Your task to perform on an android device: clear history in the chrome app Image 0: 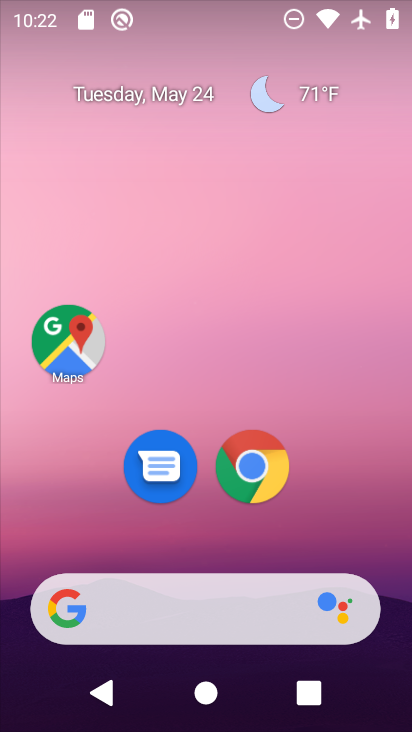
Step 0: drag from (208, 506) to (219, 90)
Your task to perform on an android device: clear history in the chrome app Image 1: 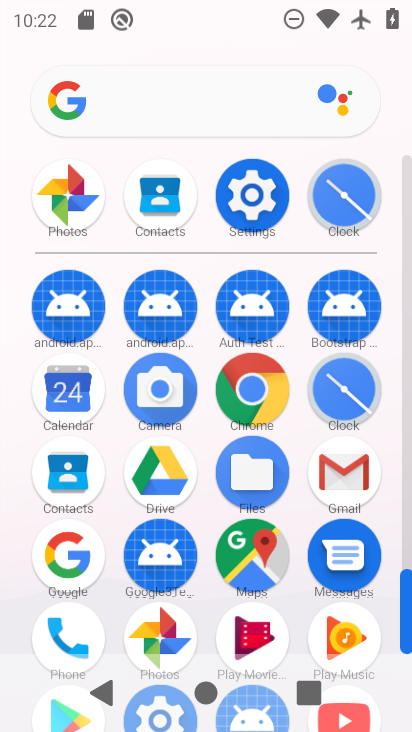
Step 1: click (278, 390)
Your task to perform on an android device: clear history in the chrome app Image 2: 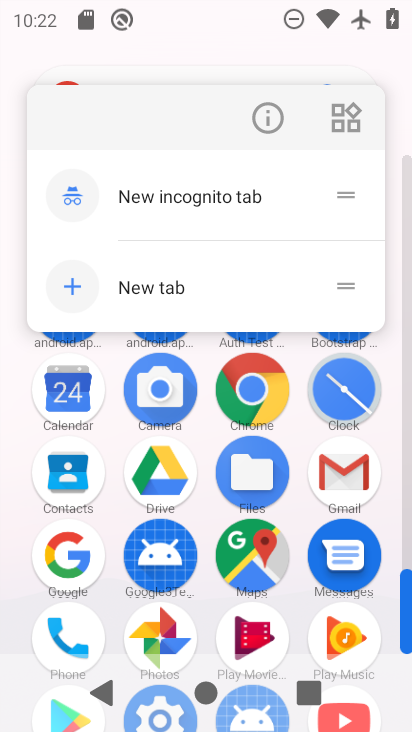
Step 2: click (238, 378)
Your task to perform on an android device: clear history in the chrome app Image 3: 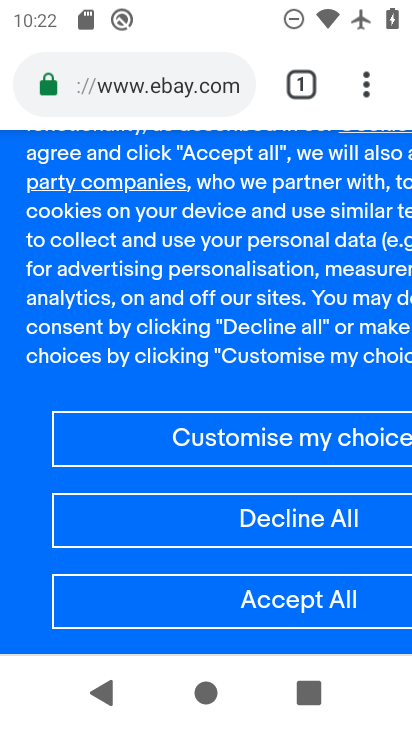
Step 3: click (368, 94)
Your task to perform on an android device: clear history in the chrome app Image 4: 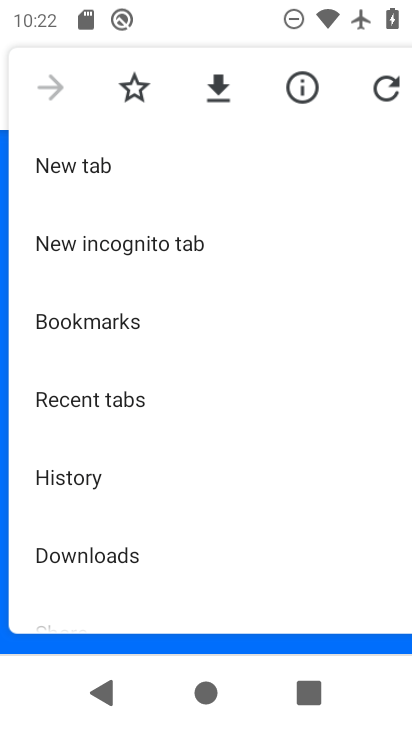
Step 4: click (97, 493)
Your task to perform on an android device: clear history in the chrome app Image 5: 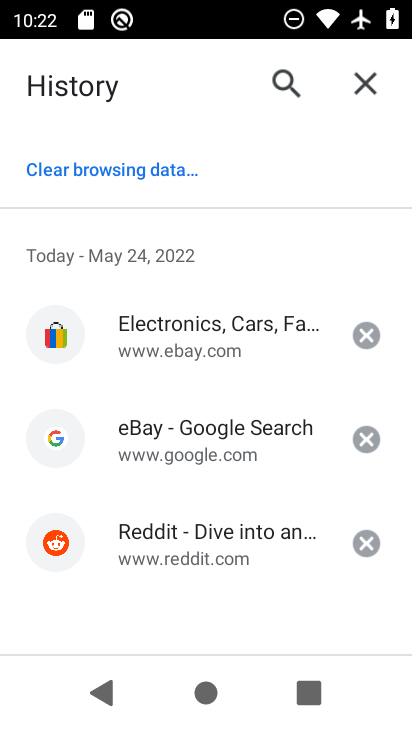
Step 5: click (120, 156)
Your task to perform on an android device: clear history in the chrome app Image 6: 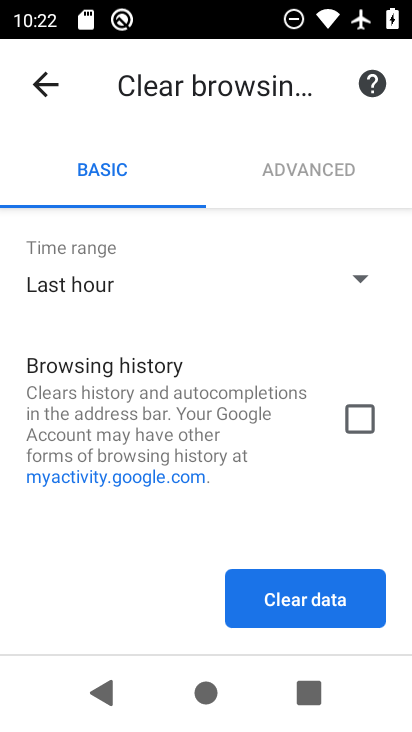
Step 6: click (340, 414)
Your task to perform on an android device: clear history in the chrome app Image 7: 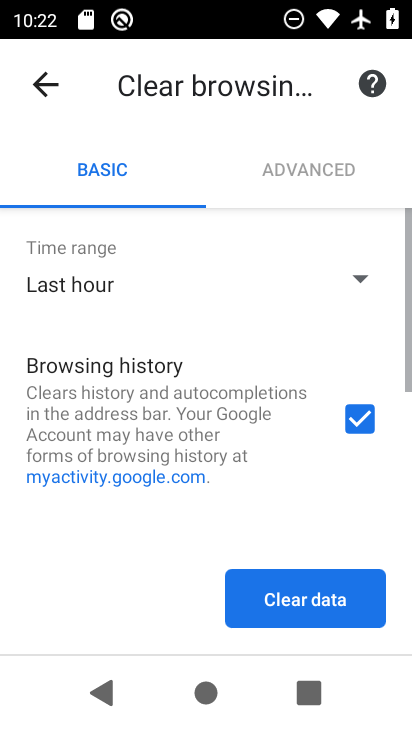
Step 7: drag from (306, 479) to (348, 18)
Your task to perform on an android device: clear history in the chrome app Image 8: 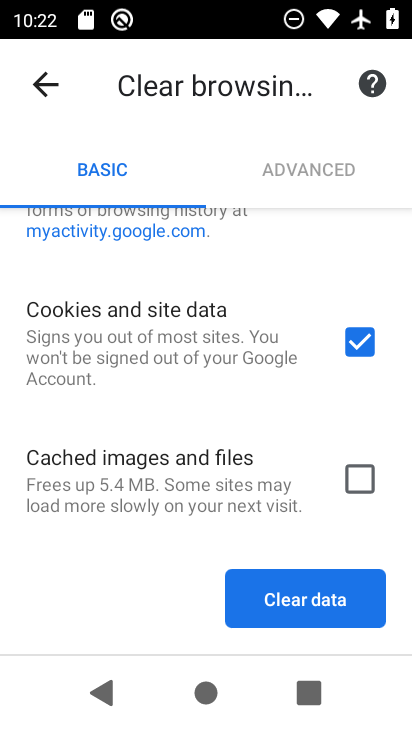
Step 8: click (313, 610)
Your task to perform on an android device: clear history in the chrome app Image 9: 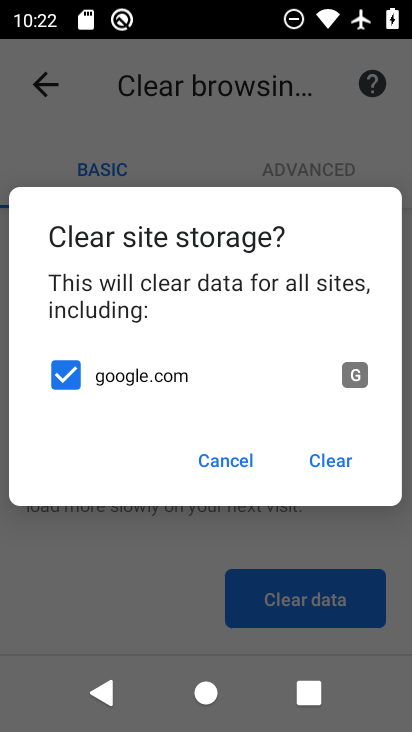
Step 9: click (318, 466)
Your task to perform on an android device: clear history in the chrome app Image 10: 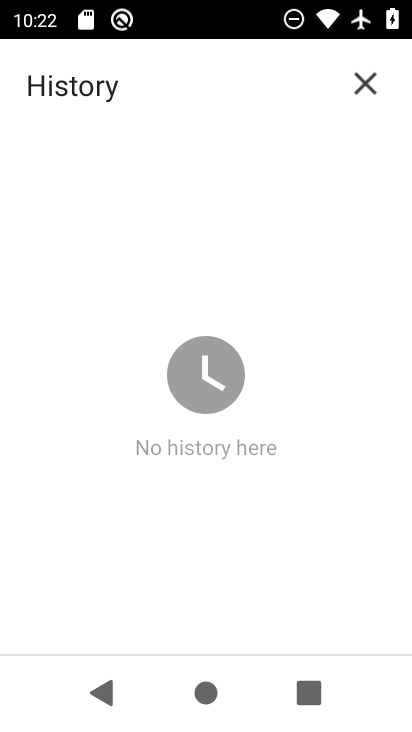
Step 10: task complete